Your task to perform on an android device: Open the stopwatch Image 0: 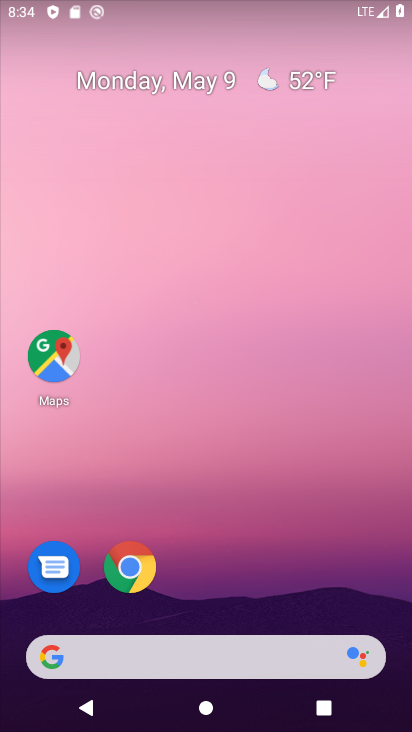
Step 0: drag from (301, 587) to (241, 90)
Your task to perform on an android device: Open the stopwatch Image 1: 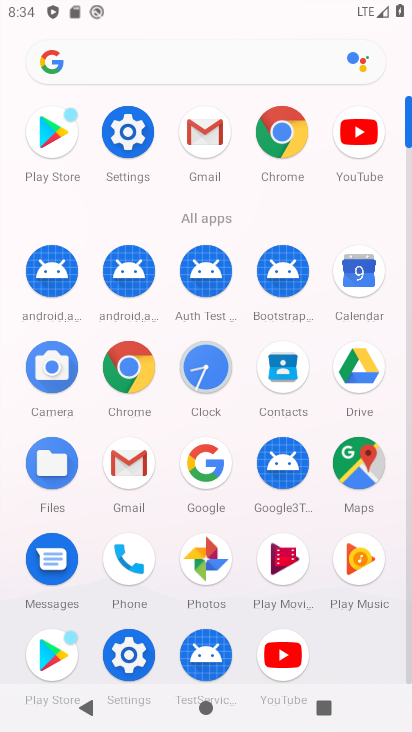
Step 1: click (218, 372)
Your task to perform on an android device: Open the stopwatch Image 2: 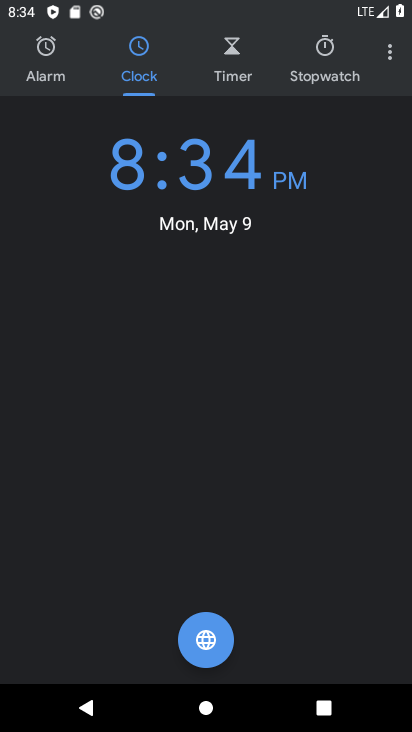
Step 2: click (347, 52)
Your task to perform on an android device: Open the stopwatch Image 3: 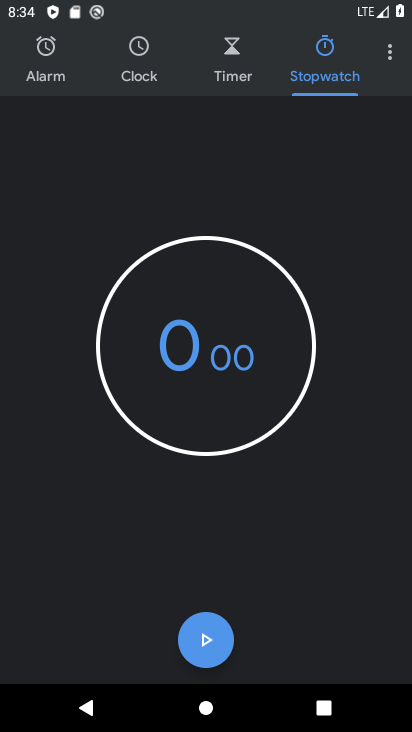
Step 3: task complete